Your task to perform on an android device: delete browsing data in the chrome app Image 0: 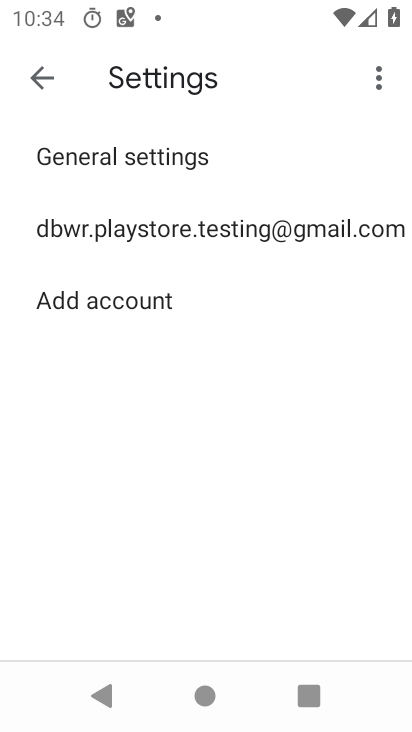
Step 0: click (297, 219)
Your task to perform on an android device: delete browsing data in the chrome app Image 1: 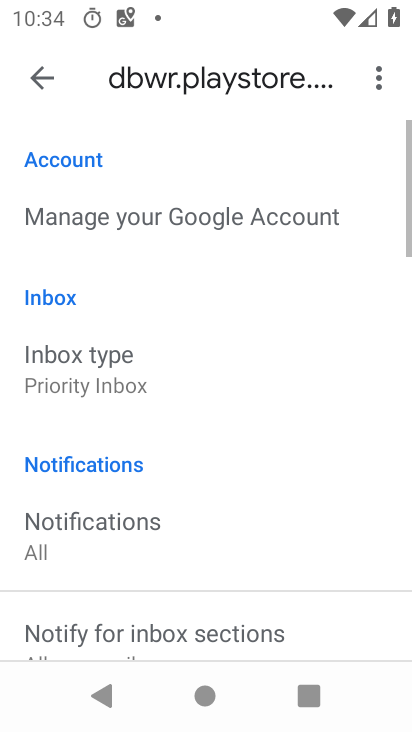
Step 1: press back button
Your task to perform on an android device: delete browsing data in the chrome app Image 2: 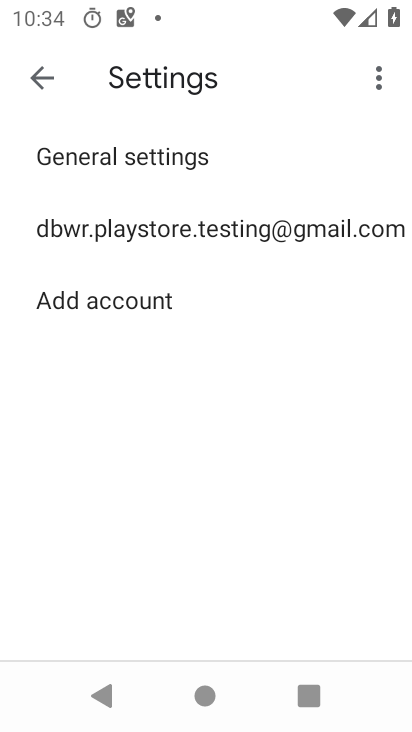
Step 2: press back button
Your task to perform on an android device: delete browsing data in the chrome app Image 3: 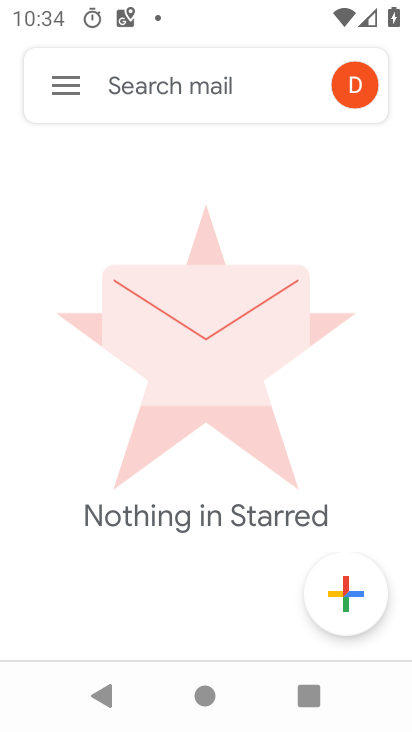
Step 3: press home button
Your task to perform on an android device: delete browsing data in the chrome app Image 4: 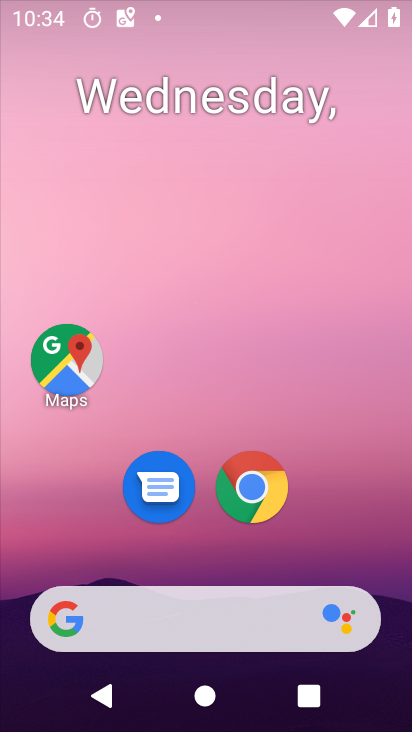
Step 4: drag from (390, 541) to (411, 35)
Your task to perform on an android device: delete browsing data in the chrome app Image 5: 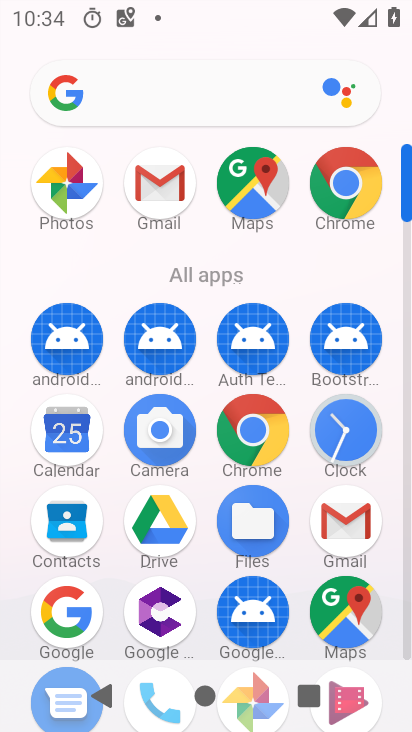
Step 5: click (261, 426)
Your task to perform on an android device: delete browsing data in the chrome app Image 6: 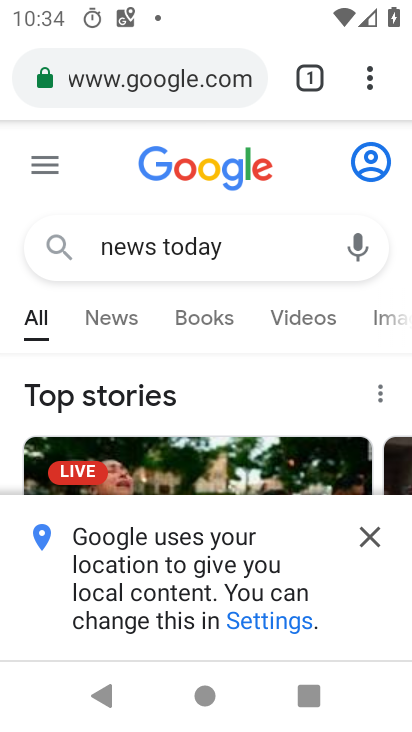
Step 6: drag from (368, 71) to (86, 447)
Your task to perform on an android device: delete browsing data in the chrome app Image 7: 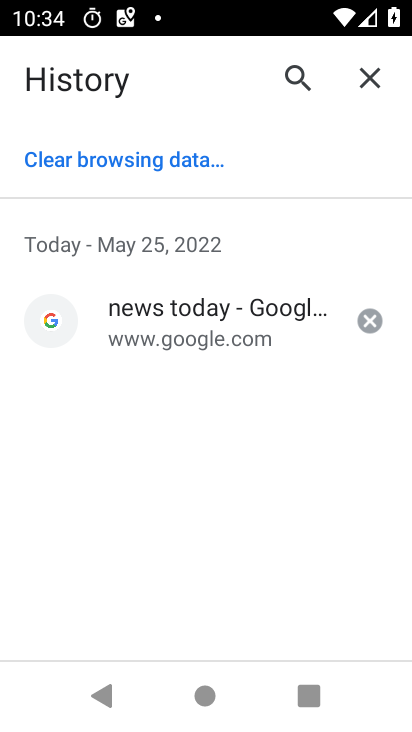
Step 7: click (154, 173)
Your task to perform on an android device: delete browsing data in the chrome app Image 8: 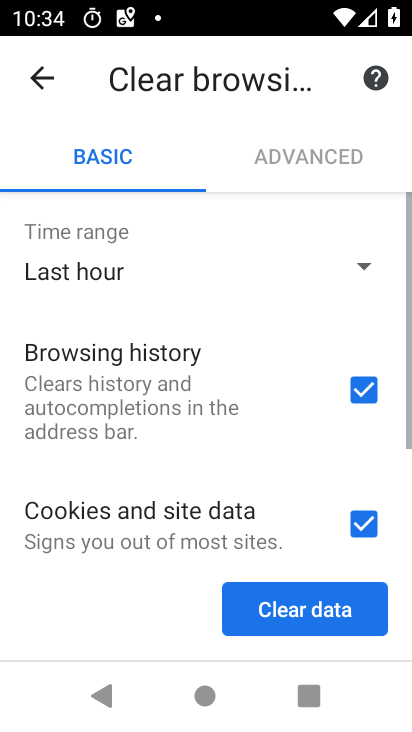
Step 8: click (329, 606)
Your task to perform on an android device: delete browsing data in the chrome app Image 9: 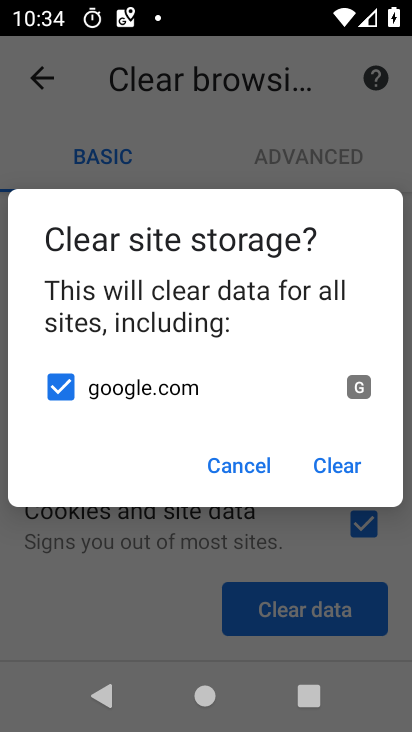
Step 9: click (327, 458)
Your task to perform on an android device: delete browsing data in the chrome app Image 10: 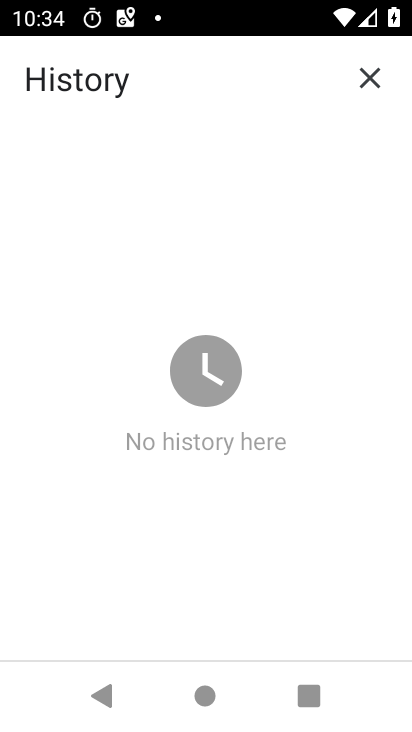
Step 10: press home button
Your task to perform on an android device: delete browsing data in the chrome app Image 11: 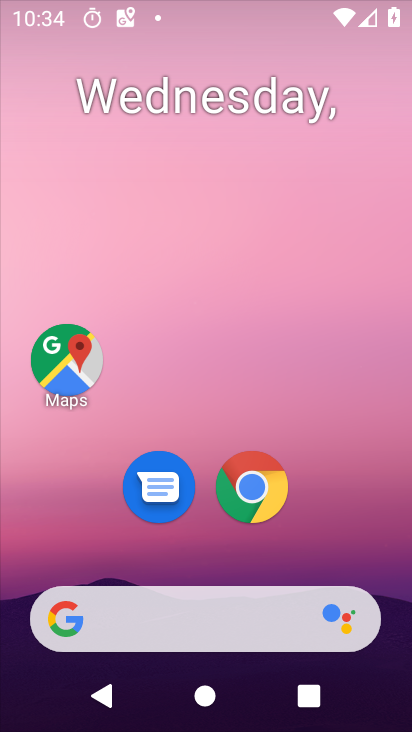
Step 11: drag from (327, 658) to (385, 120)
Your task to perform on an android device: delete browsing data in the chrome app Image 12: 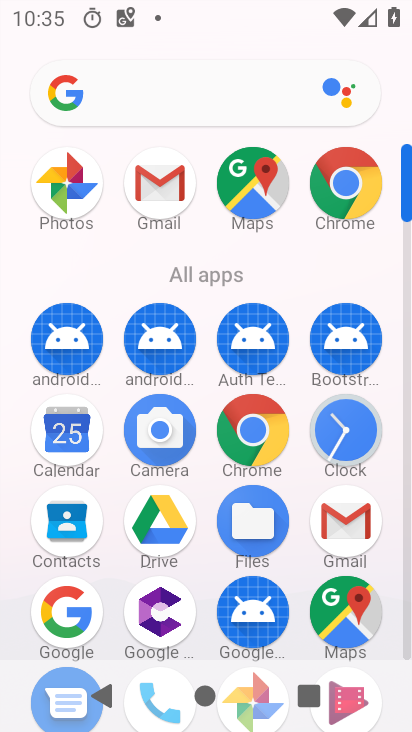
Step 12: click (266, 439)
Your task to perform on an android device: delete browsing data in the chrome app Image 13: 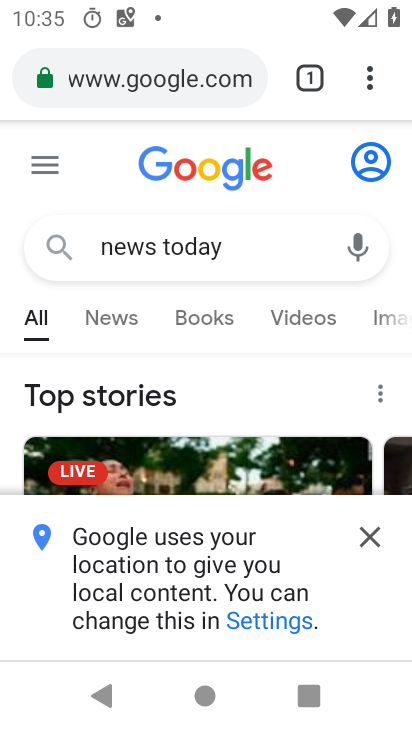
Step 13: drag from (365, 80) to (249, 535)
Your task to perform on an android device: delete browsing data in the chrome app Image 14: 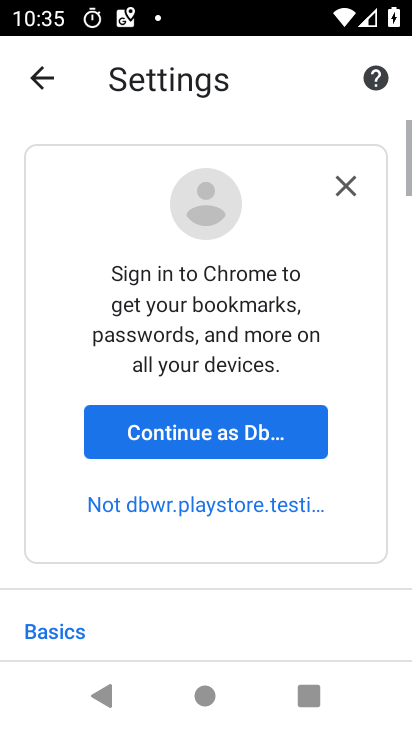
Step 14: drag from (246, 605) to (247, 9)
Your task to perform on an android device: delete browsing data in the chrome app Image 15: 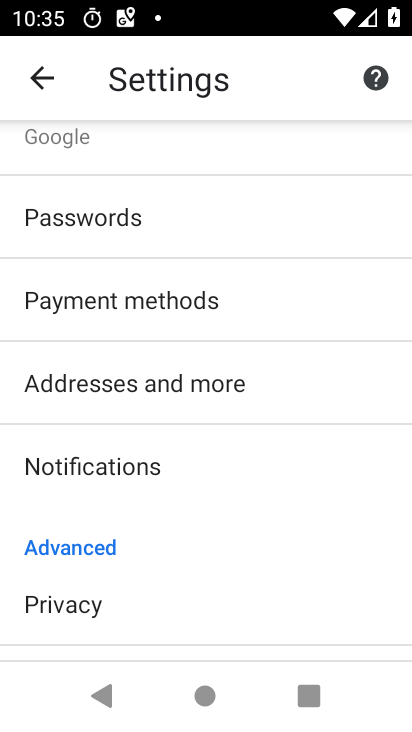
Step 15: click (129, 599)
Your task to perform on an android device: delete browsing data in the chrome app Image 16: 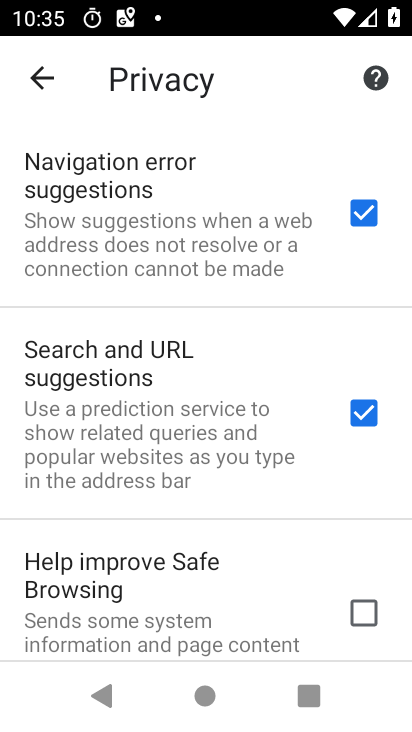
Step 16: drag from (205, 601) to (255, 7)
Your task to perform on an android device: delete browsing data in the chrome app Image 17: 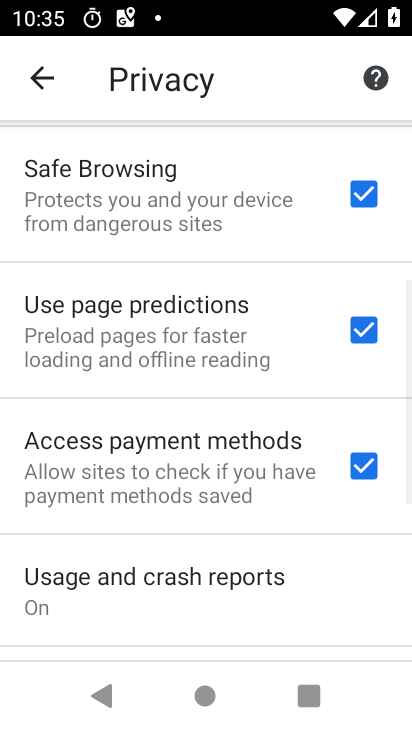
Step 17: drag from (165, 564) to (190, 148)
Your task to perform on an android device: delete browsing data in the chrome app Image 18: 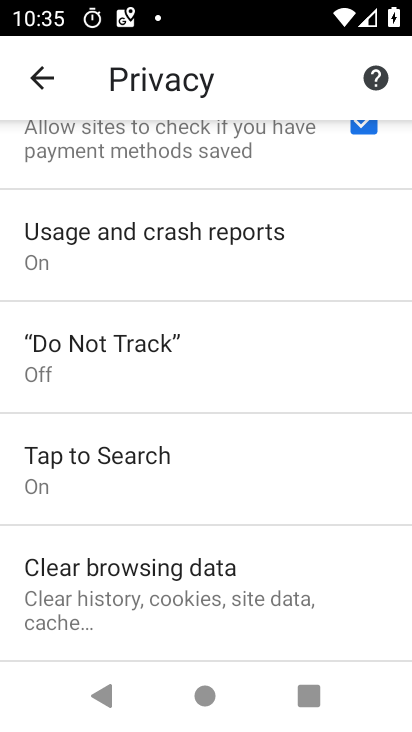
Step 18: drag from (238, 559) to (258, 384)
Your task to perform on an android device: delete browsing data in the chrome app Image 19: 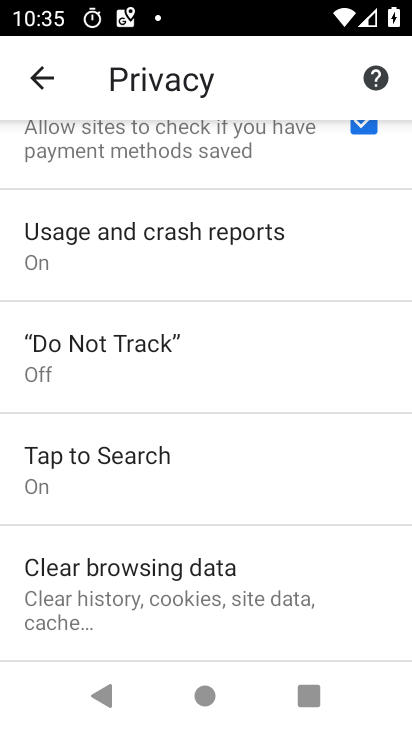
Step 19: click (256, 560)
Your task to perform on an android device: delete browsing data in the chrome app Image 20: 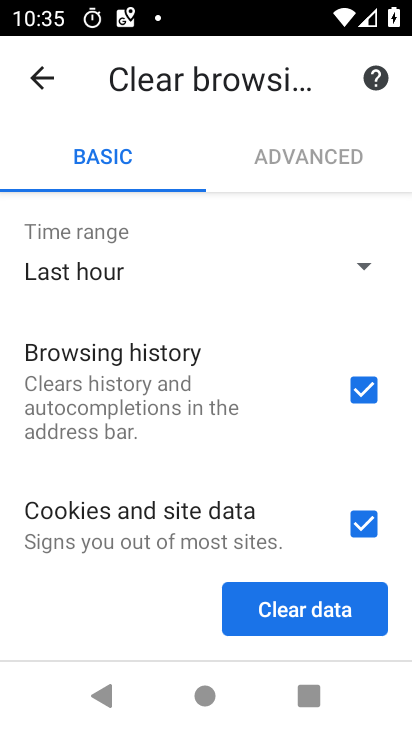
Step 20: click (296, 623)
Your task to perform on an android device: delete browsing data in the chrome app Image 21: 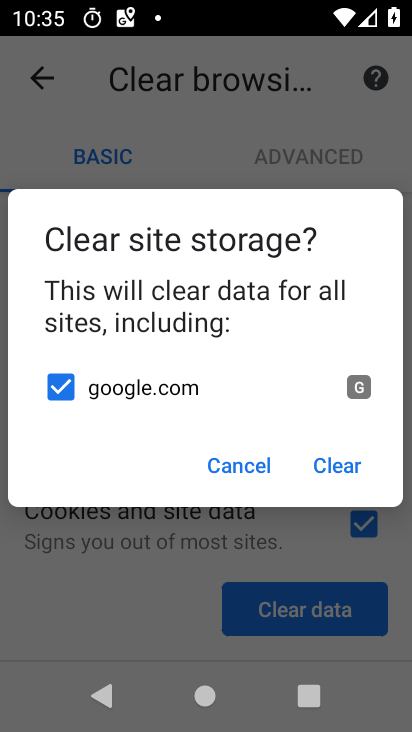
Step 21: click (335, 462)
Your task to perform on an android device: delete browsing data in the chrome app Image 22: 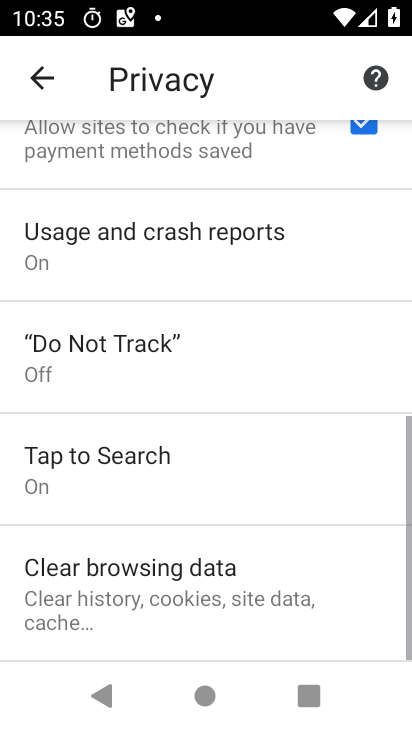
Step 22: task complete